Your task to perform on an android device: Go to calendar. Show me events next week Image 0: 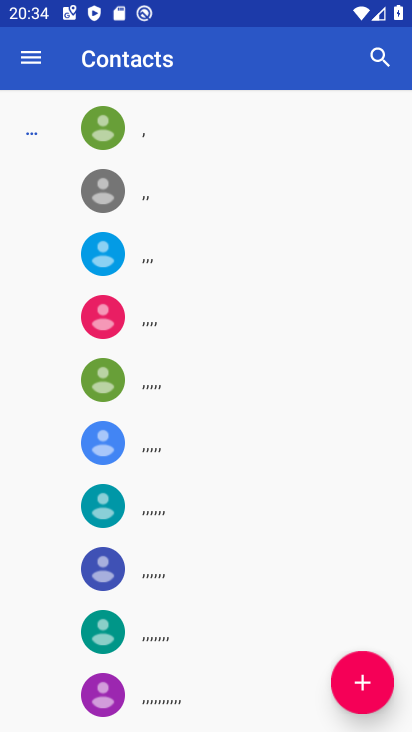
Step 0: drag from (351, 591) to (351, 119)
Your task to perform on an android device: Go to calendar. Show me events next week Image 1: 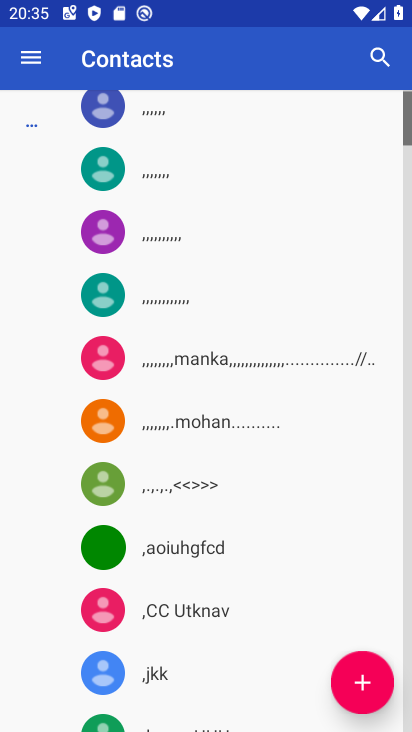
Step 1: press home button
Your task to perform on an android device: Go to calendar. Show me events next week Image 2: 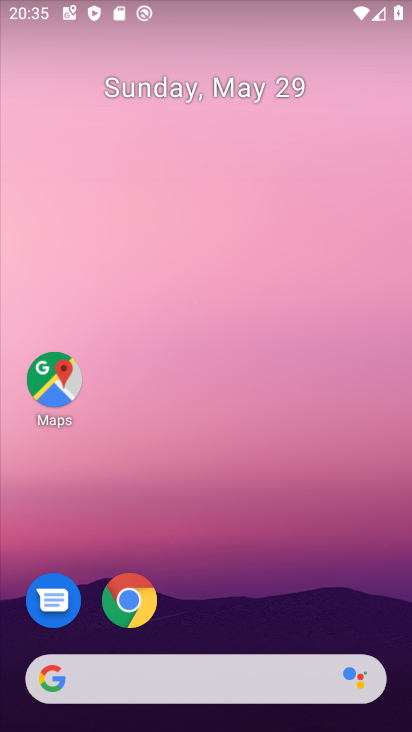
Step 2: drag from (229, 583) to (278, 108)
Your task to perform on an android device: Go to calendar. Show me events next week Image 3: 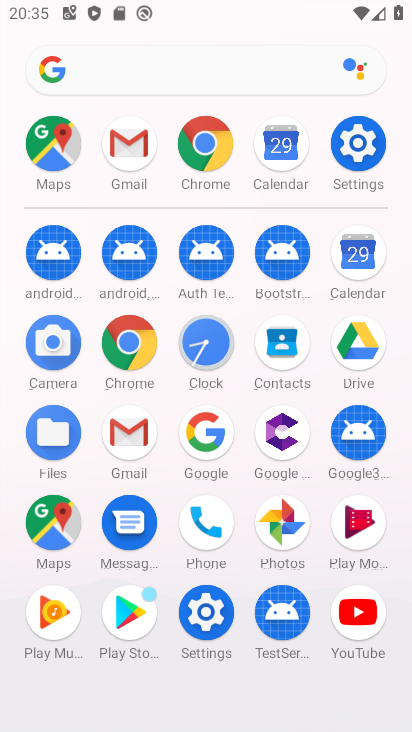
Step 3: click (372, 256)
Your task to perform on an android device: Go to calendar. Show me events next week Image 4: 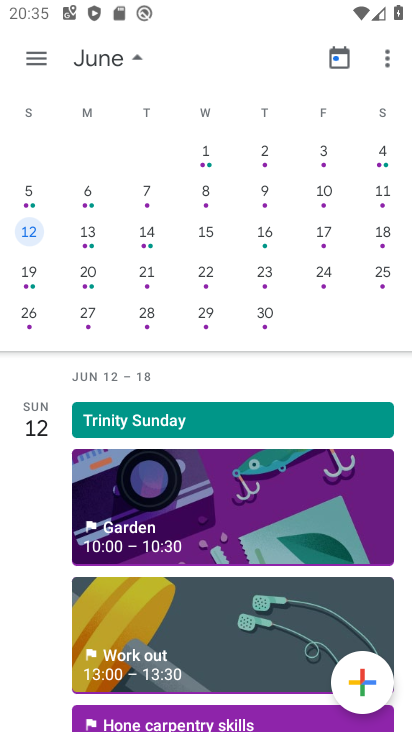
Step 4: click (210, 155)
Your task to perform on an android device: Go to calendar. Show me events next week Image 5: 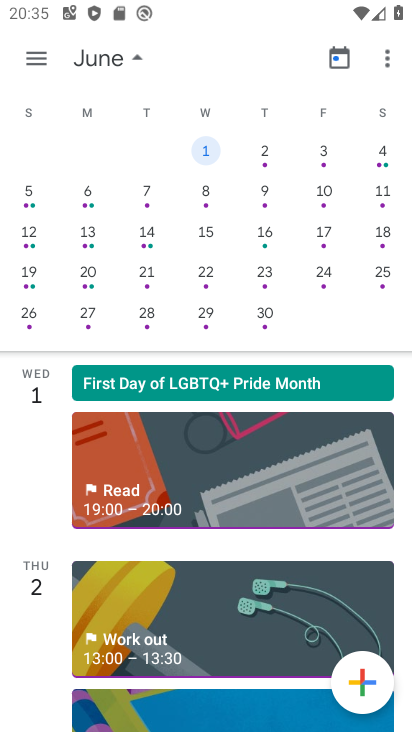
Step 5: click (35, 196)
Your task to perform on an android device: Go to calendar. Show me events next week Image 6: 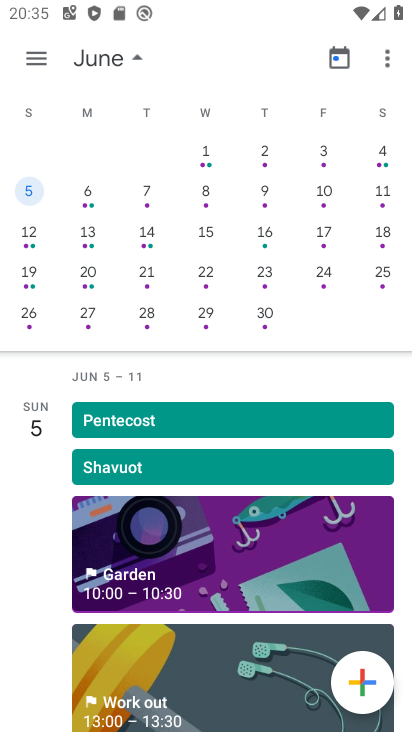
Step 6: task complete